Your task to perform on an android device: Open settings Image 0: 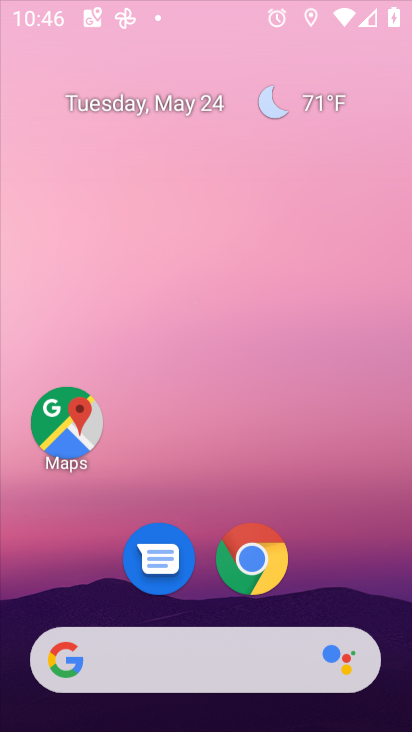
Step 0: drag from (386, 596) to (292, 33)
Your task to perform on an android device: Open settings Image 1: 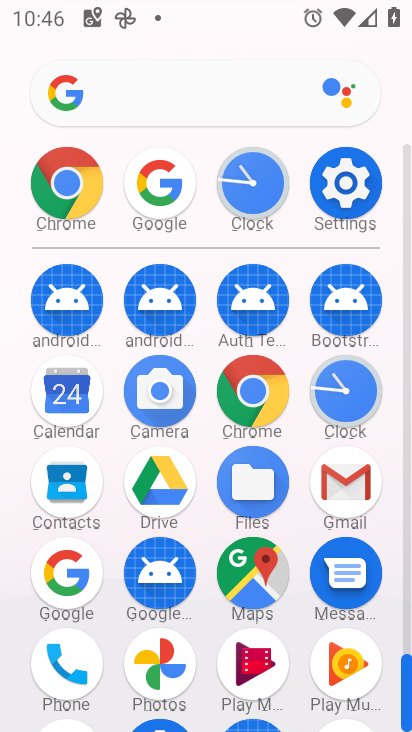
Step 1: click (362, 164)
Your task to perform on an android device: Open settings Image 2: 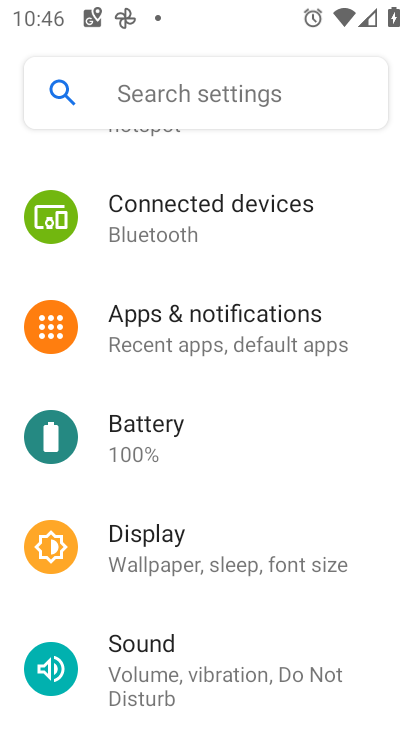
Step 2: task complete